Your task to perform on an android device: turn on sleep mode Image 0: 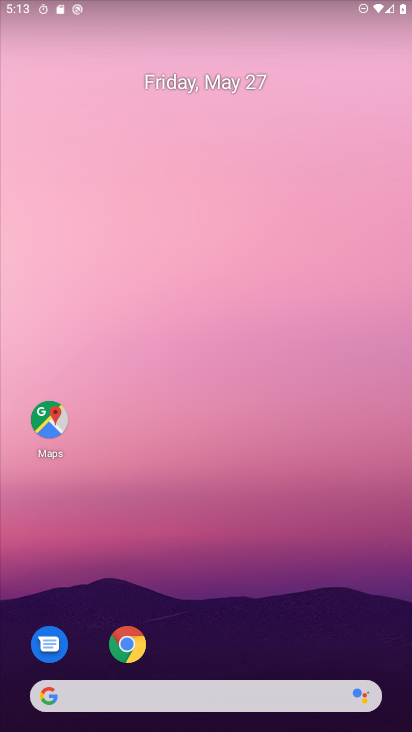
Step 0: drag from (197, 622) to (409, 113)
Your task to perform on an android device: turn on sleep mode Image 1: 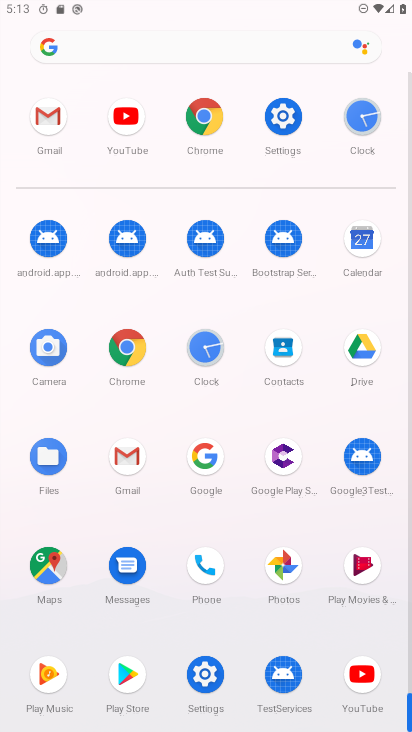
Step 1: click (261, 111)
Your task to perform on an android device: turn on sleep mode Image 2: 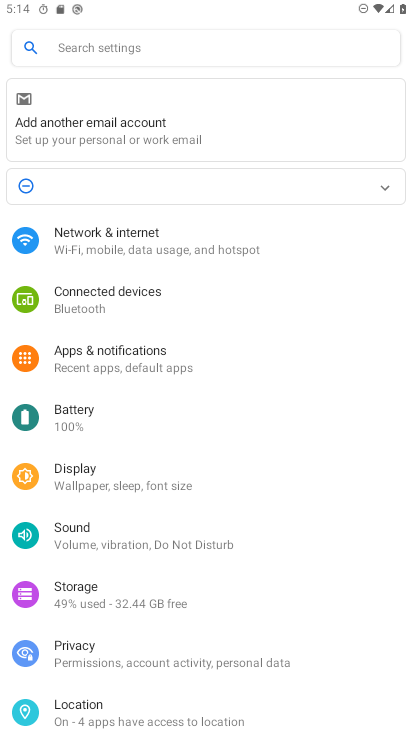
Step 2: task complete